Your task to perform on an android device: add a contact Image 0: 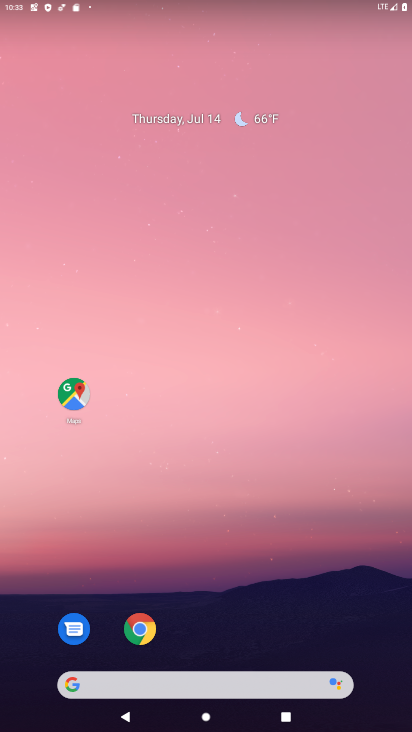
Step 0: press home button
Your task to perform on an android device: add a contact Image 1: 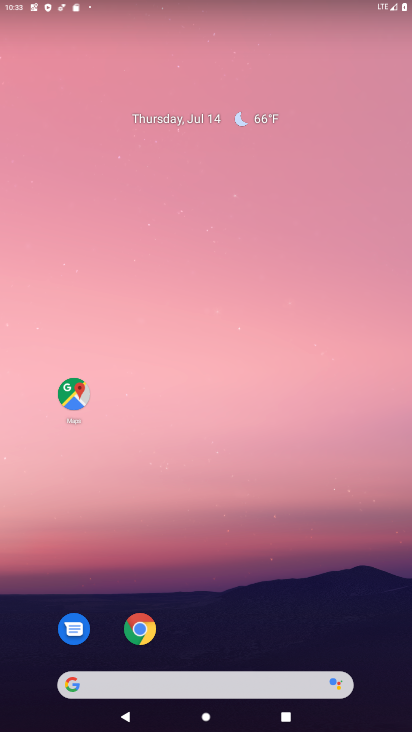
Step 1: drag from (290, 619) to (270, 42)
Your task to perform on an android device: add a contact Image 2: 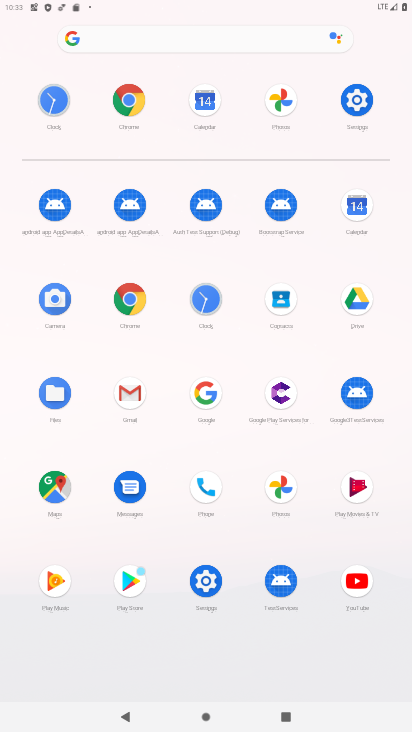
Step 2: click (283, 297)
Your task to perform on an android device: add a contact Image 3: 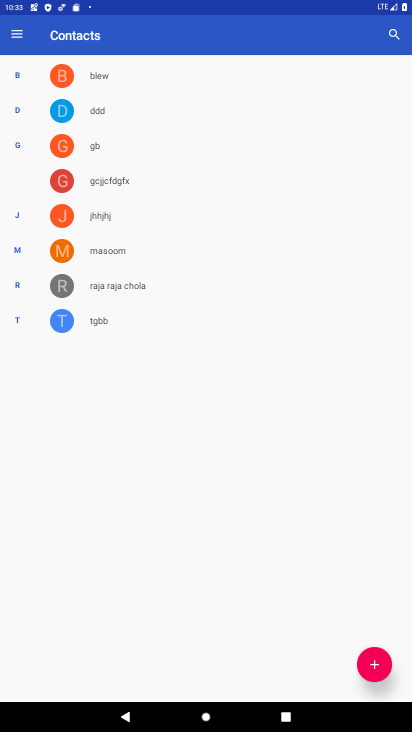
Step 3: click (380, 668)
Your task to perform on an android device: add a contact Image 4: 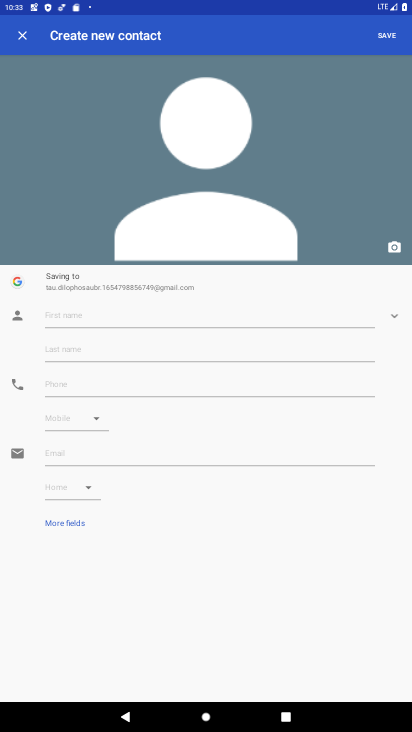
Step 4: click (146, 314)
Your task to perform on an android device: add a contact Image 5: 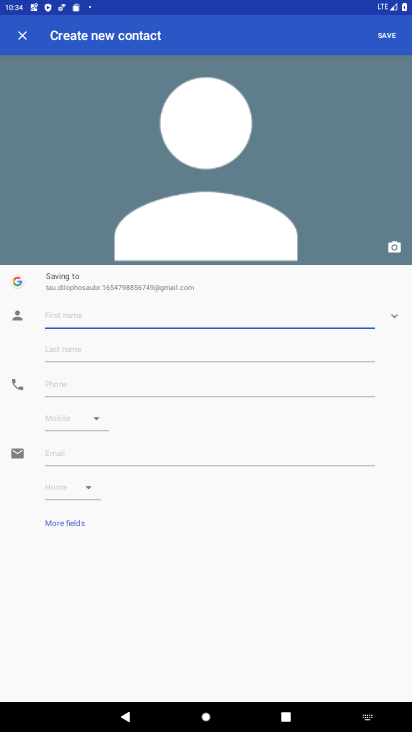
Step 5: type "fffhtt"
Your task to perform on an android device: add a contact Image 6: 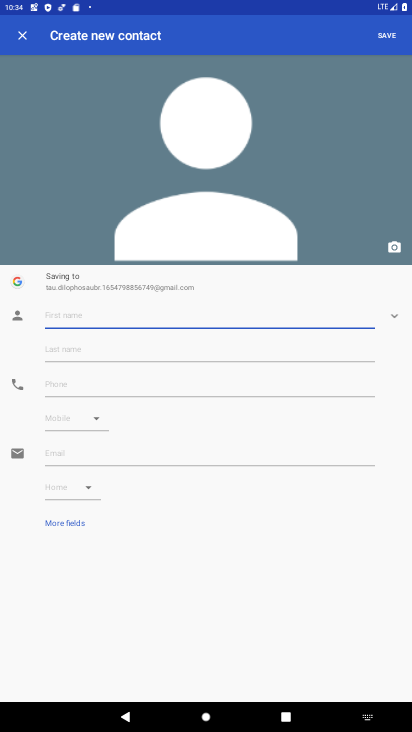
Step 6: click (183, 319)
Your task to perform on an android device: add a contact Image 7: 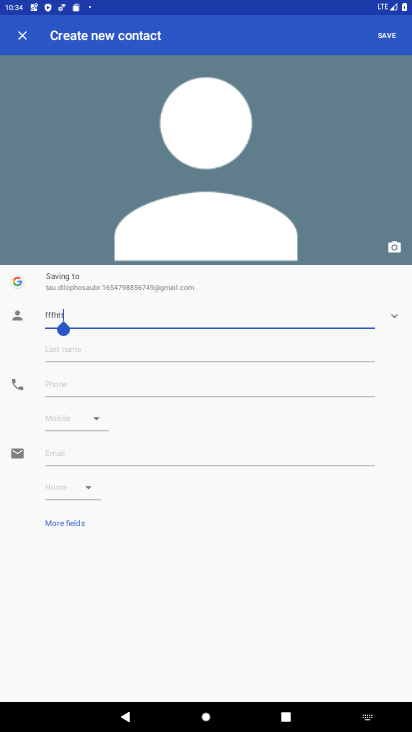
Step 7: click (106, 374)
Your task to perform on an android device: add a contact Image 8: 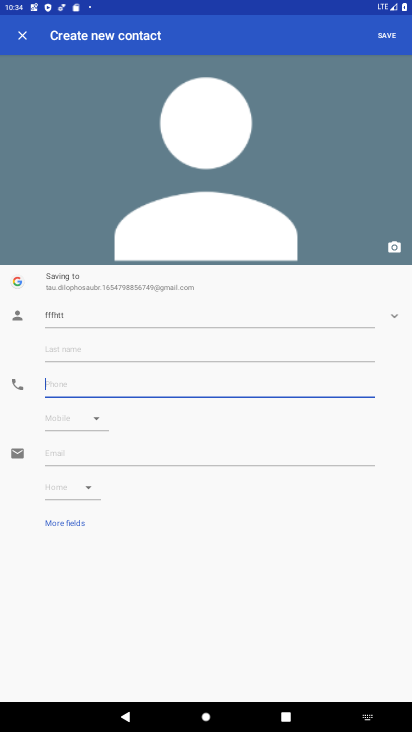
Step 8: type "3555666"
Your task to perform on an android device: add a contact Image 9: 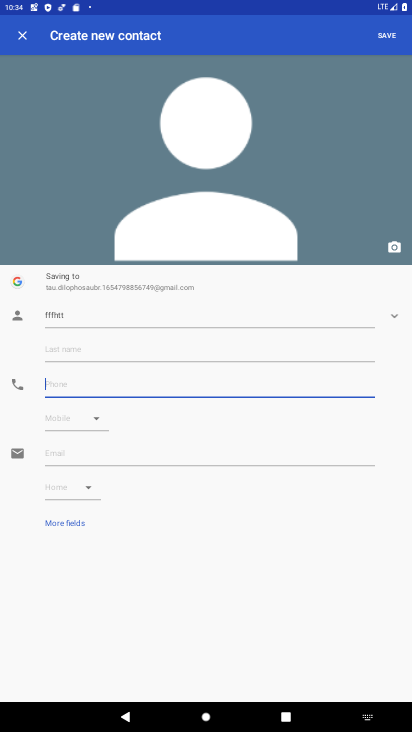
Step 9: click (204, 376)
Your task to perform on an android device: add a contact Image 10: 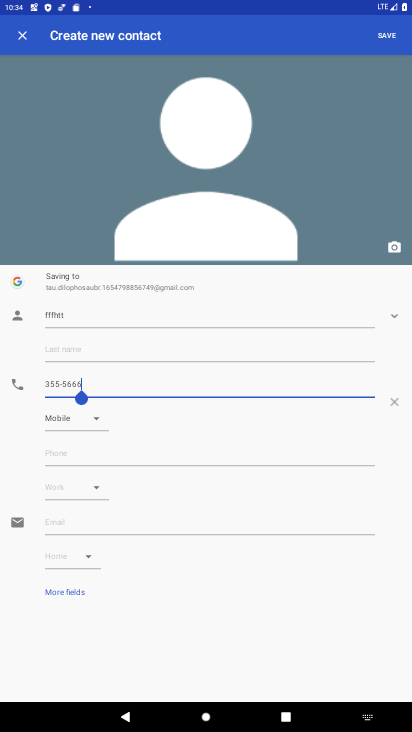
Step 10: click (396, 35)
Your task to perform on an android device: add a contact Image 11: 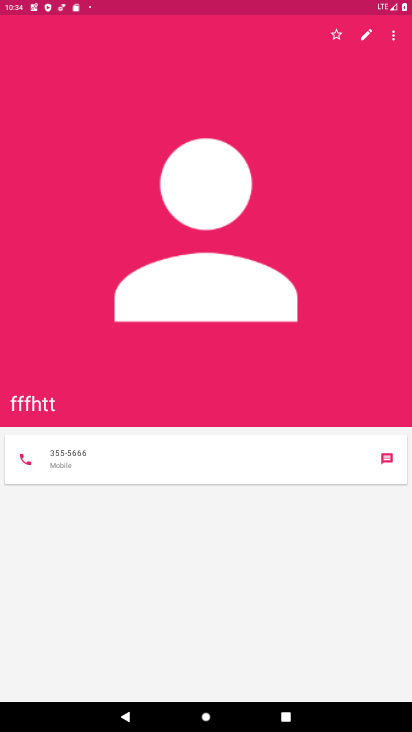
Step 11: task complete